Your task to perform on an android device: turn pop-ups on in chrome Image 0: 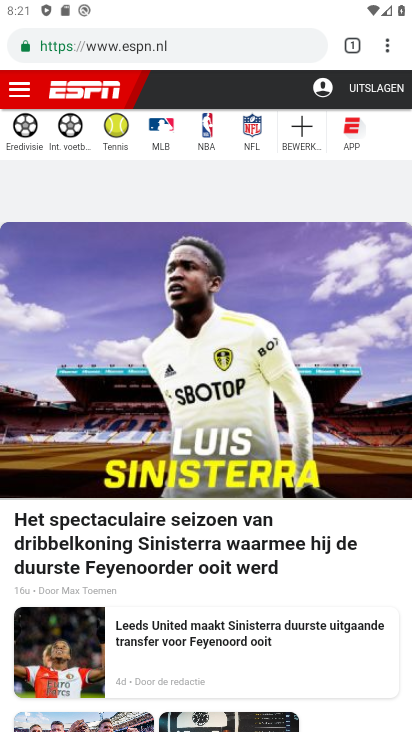
Step 0: click (388, 52)
Your task to perform on an android device: turn pop-ups on in chrome Image 1: 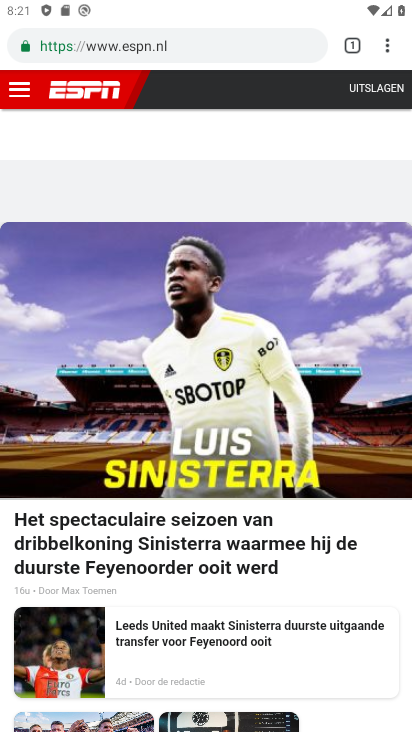
Step 1: click (382, 58)
Your task to perform on an android device: turn pop-ups on in chrome Image 2: 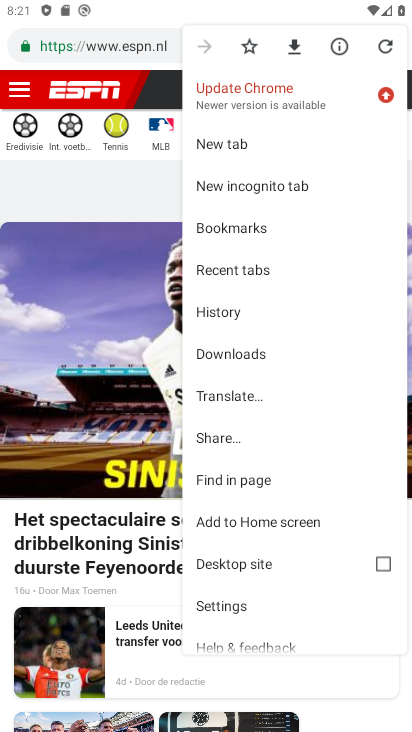
Step 2: click (234, 605)
Your task to perform on an android device: turn pop-ups on in chrome Image 3: 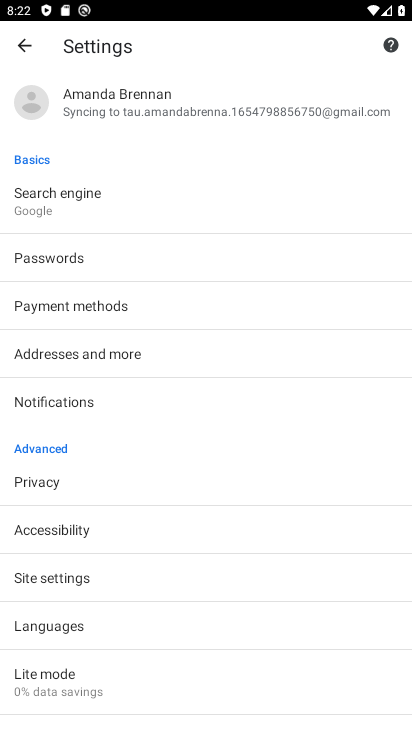
Step 3: click (93, 573)
Your task to perform on an android device: turn pop-ups on in chrome Image 4: 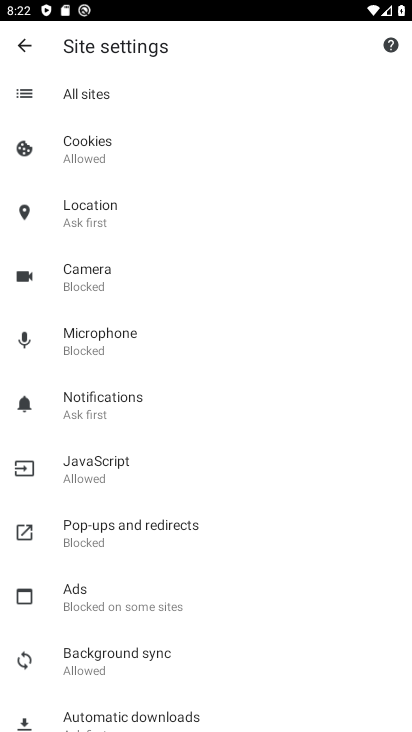
Step 4: click (132, 528)
Your task to perform on an android device: turn pop-ups on in chrome Image 5: 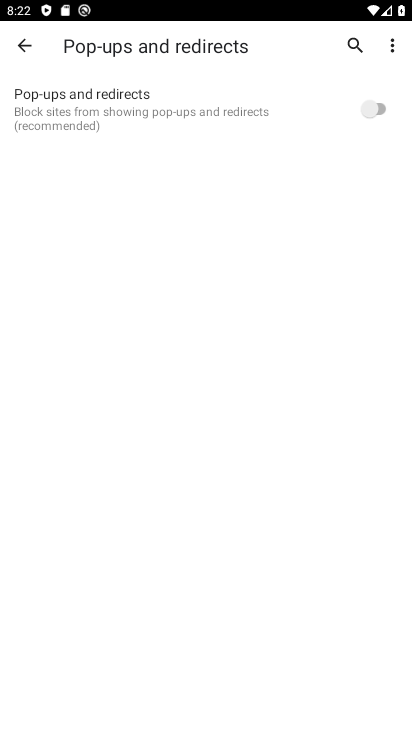
Step 5: click (380, 100)
Your task to perform on an android device: turn pop-ups on in chrome Image 6: 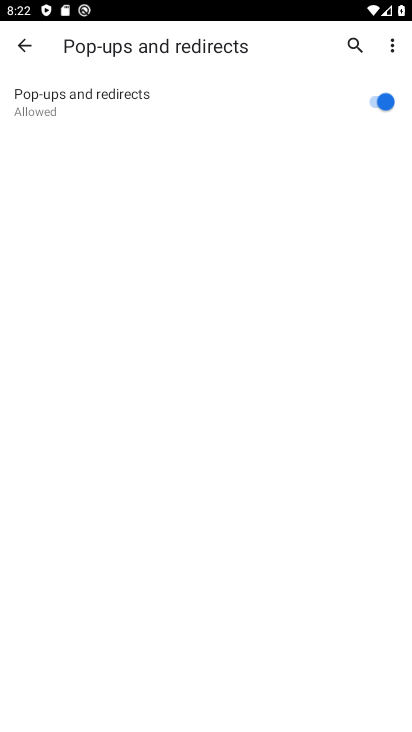
Step 6: task complete